Your task to perform on an android device: Find coffee shops on Maps Image 0: 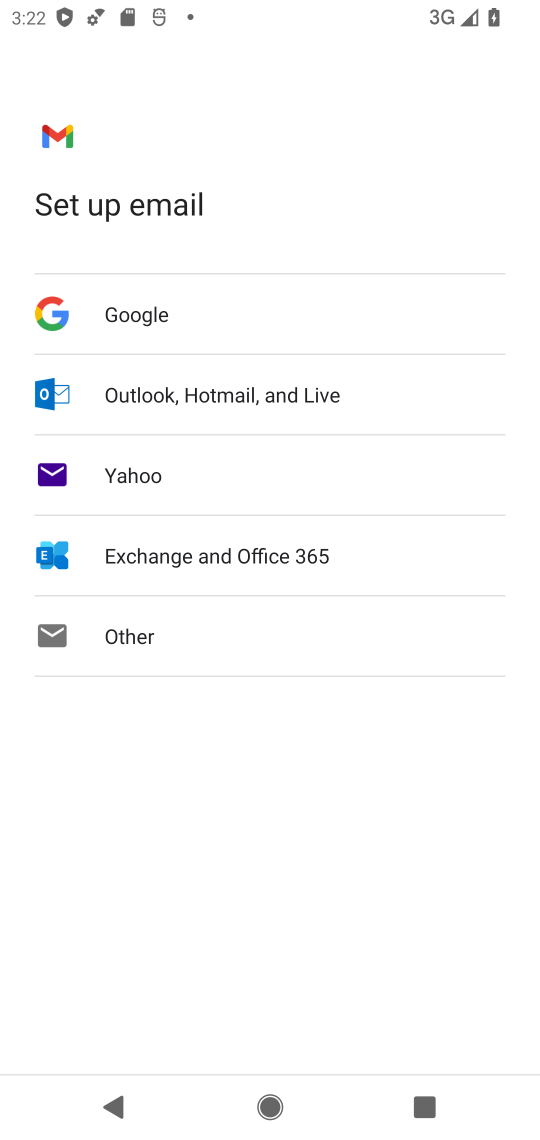
Step 0: press home button
Your task to perform on an android device: Find coffee shops on Maps Image 1: 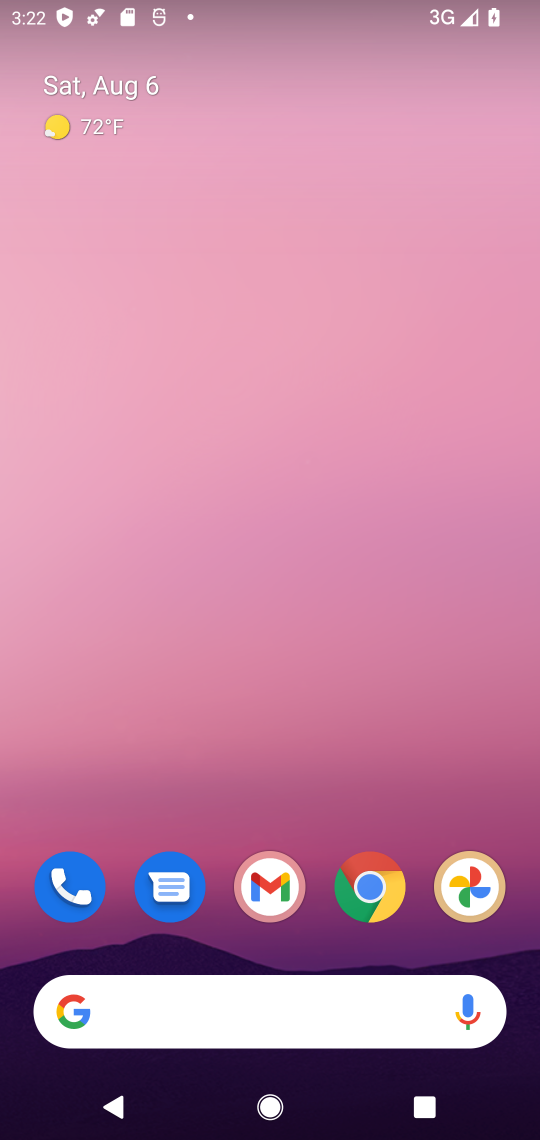
Step 1: drag from (402, 817) to (419, 429)
Your task to perform on an android device: Find coffee shops on Maps Image 2: 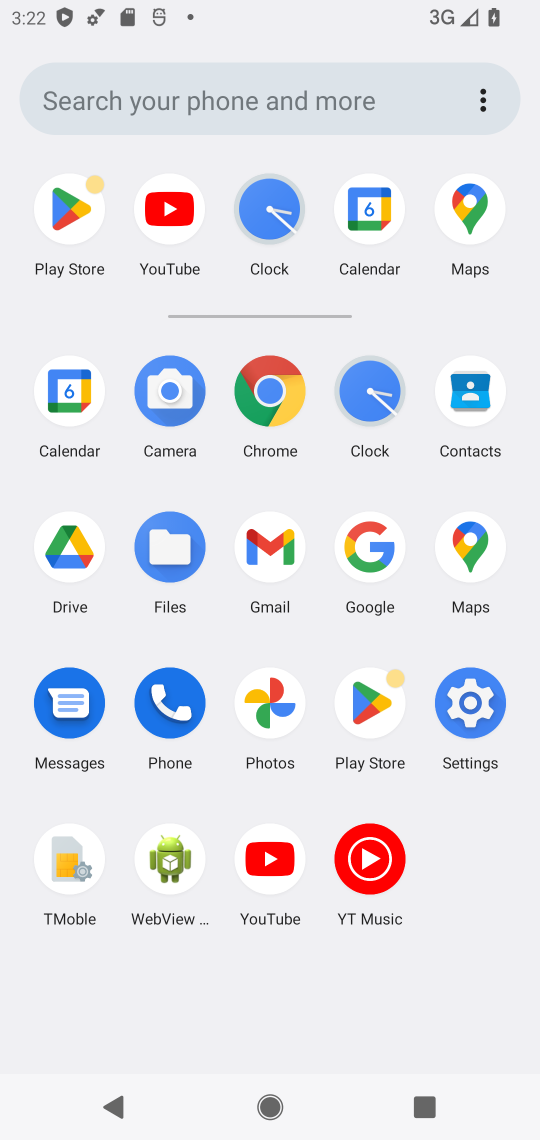
Step 2: click (480, 541)
Your task to perform on an android device: Find coffee shops on Maps Image 3: 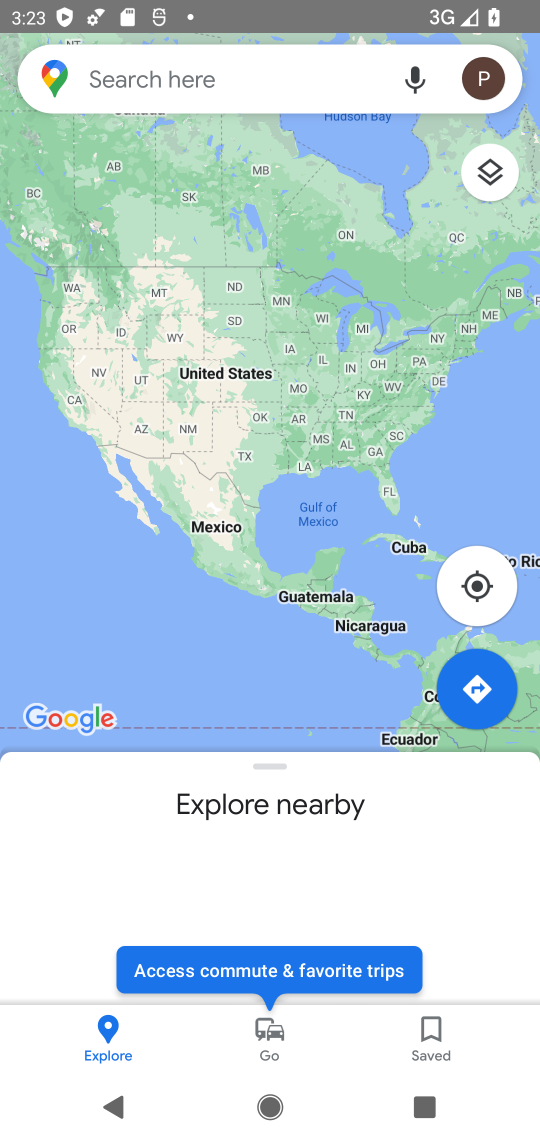
Step 3: click (283, 62)
Your task to perform on an android device: Find coffee shops on Maps Image 4: 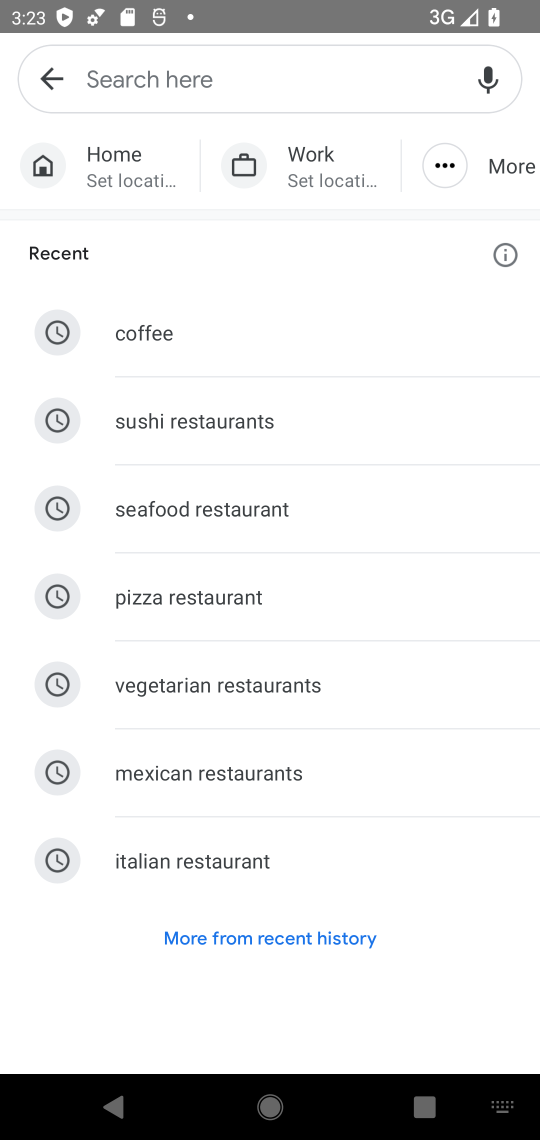
Step 4: type "coffee"
Your task to perform on an android device: Find coffee shops on Maps Image 5: 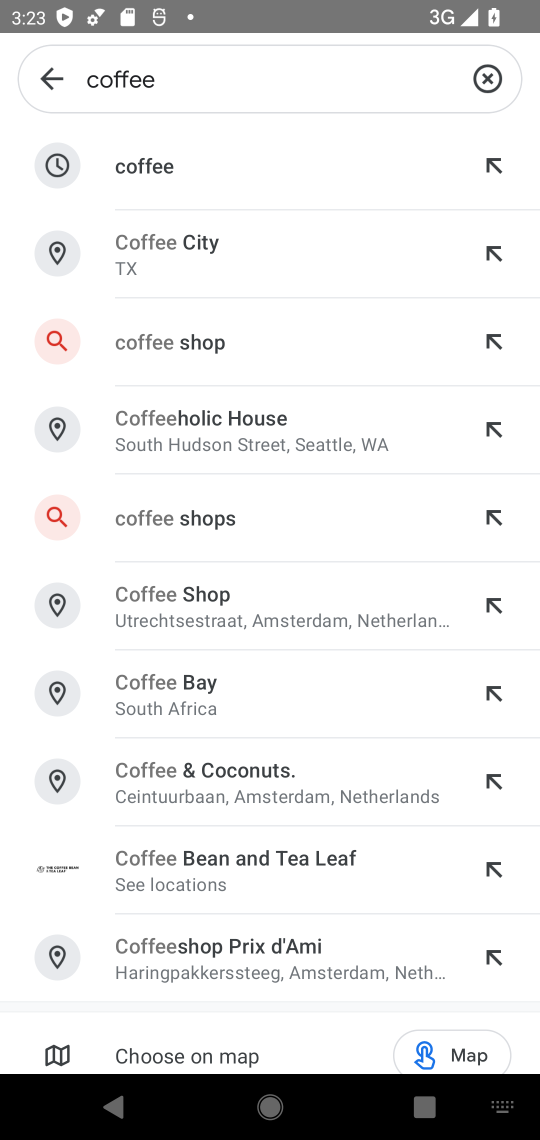
Step 5: click (194, 163)
Your task to perform on an android device: Find coffee shops on Maps Image 6: 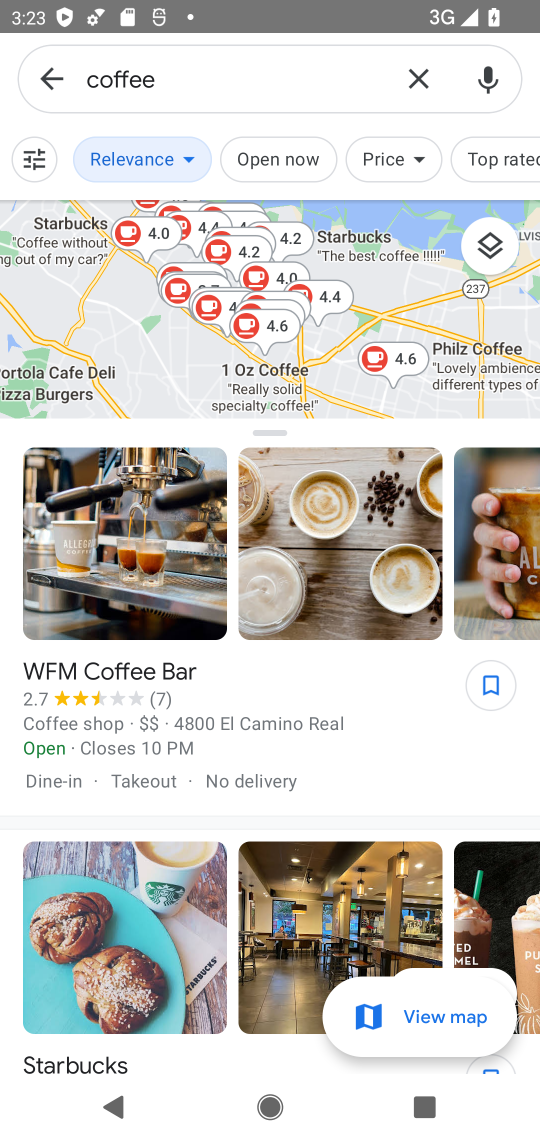
Step 6: task complete